Your task to perform on an android device: turn on javascript in the chrome app Image 0: 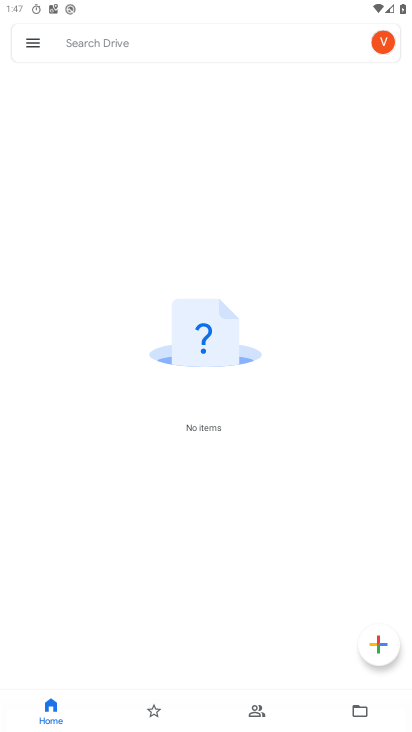
Step 0: press home button
Your task to perform on an android device: turn on javascript in the chrome app Image 1: 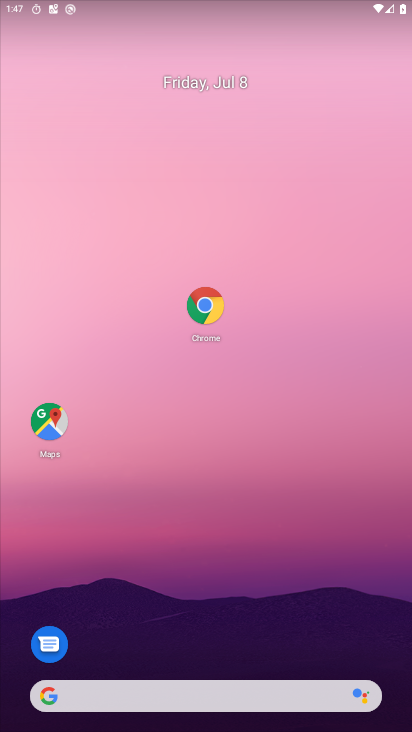
Step 1: click (216, 298)
Your task to perform on an android device: turn on javascript in the chrome app Image 2: 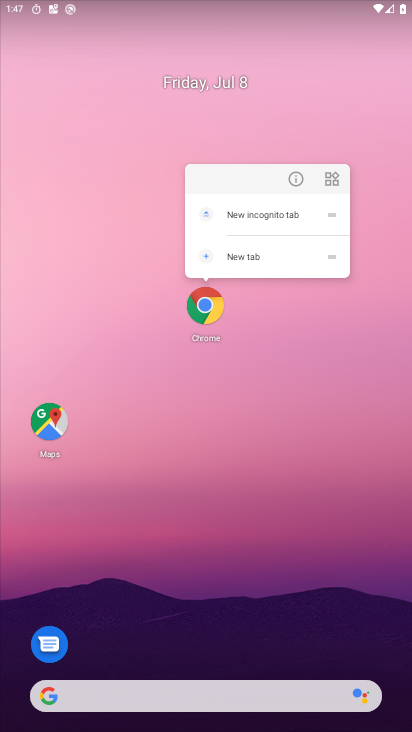
Step 2: click (211, 307)
Your task to perform on an android device: turn on javascript in the chrome app Image 3: 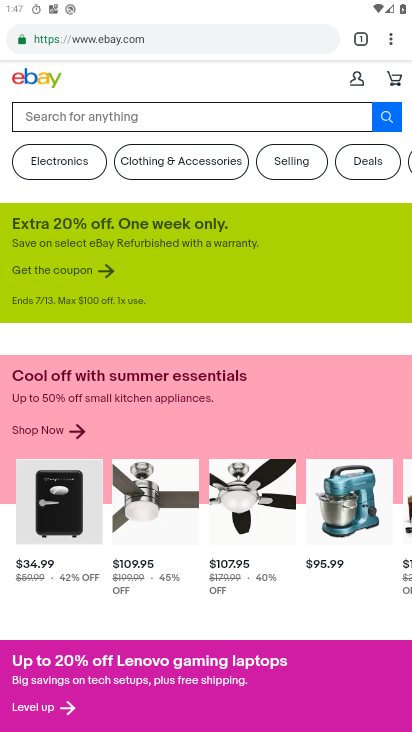
Step 3: click (382, 43)
Your task to perform on an android device: turn on javascript in the chrome app Image 4: 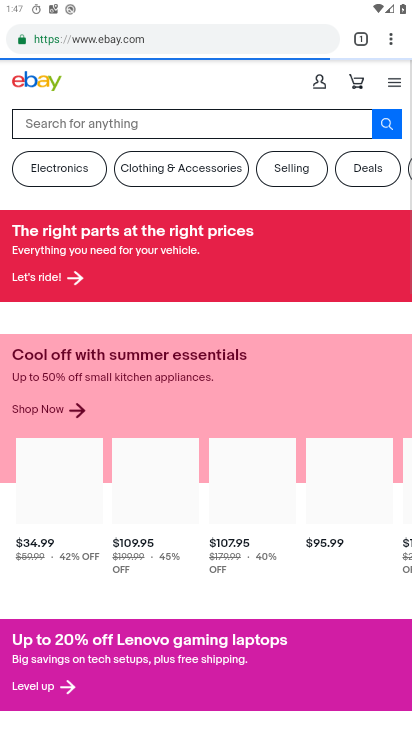
Step 4: click (392, 35)
Your task to perform on an android device: turn on javascript in the chrome app Image 5: 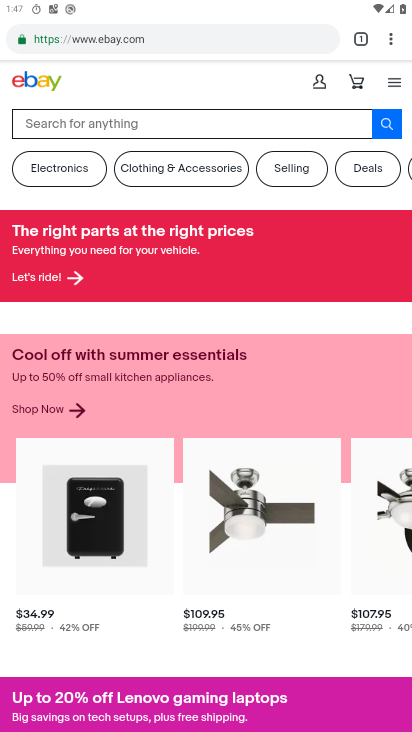
Step 5: click (392, 35)
Your task to perform on an android device: turn on javascript in the chrome app Image 6: 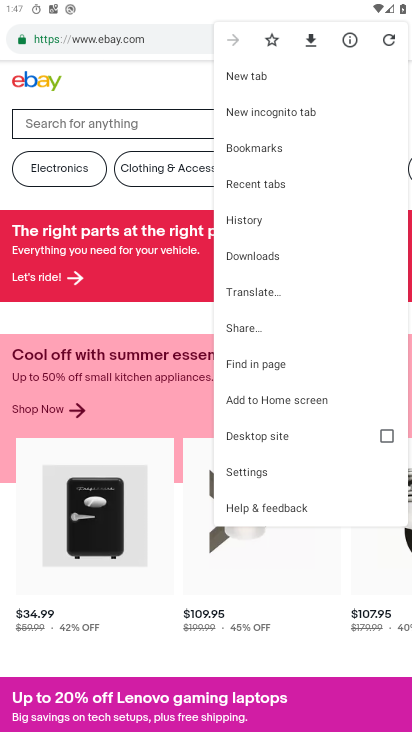
Step 6: click (258, 477)
Your task to perform on an android device: turn on javascript in the chrome app Image 7: 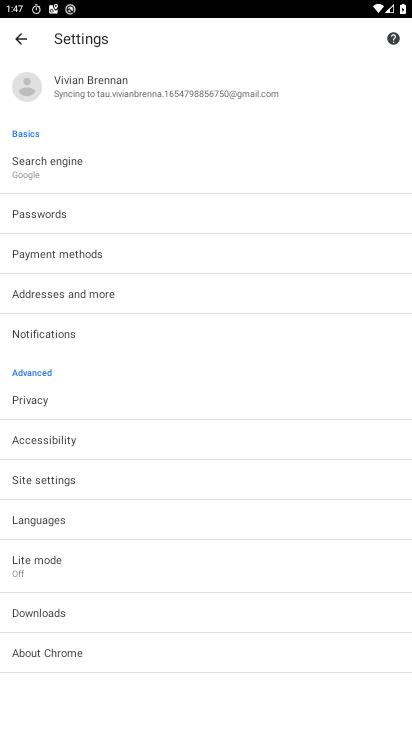
Step 7: click (50, 480)
Your task to perform on an android device: turn on javascript in the chrome app Image 8: 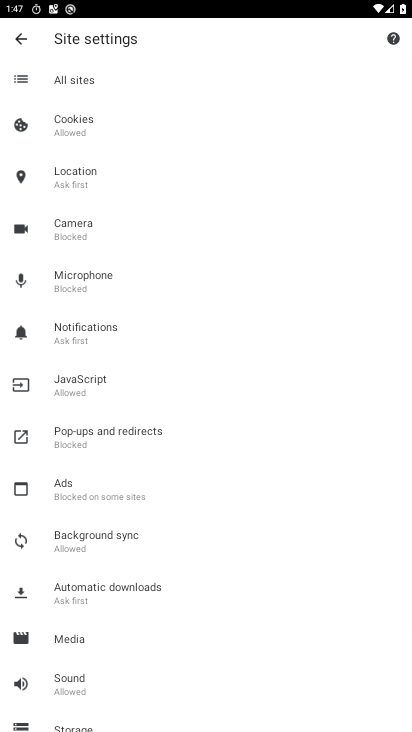
Step 8: click (76, 384)
Your task to perform on an android device: turn on javascript in the chrome app Image 9: 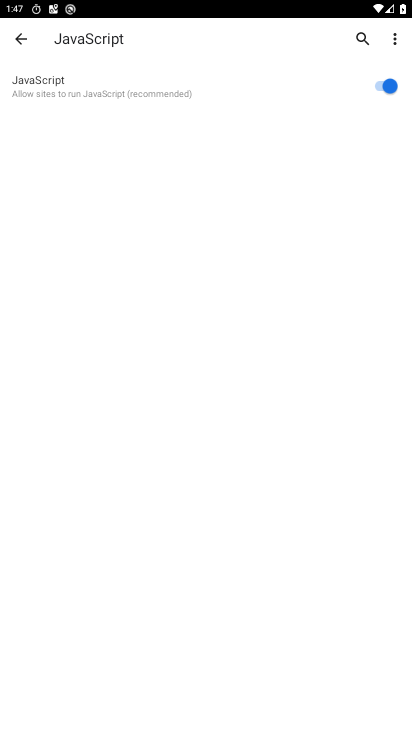
Step 9: task complete